Your task to perform on an android device: empty trash in google photos Image 0: 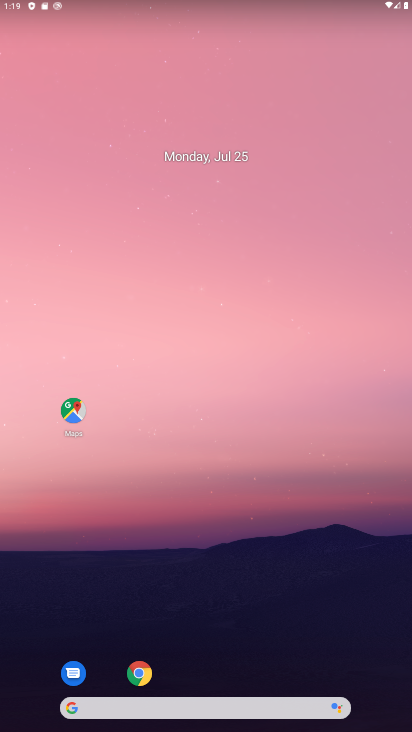
Step 0: drag from (244, 542) to (289, 184)
Your task to perform on an android device: empty trash in google photos Image 1: 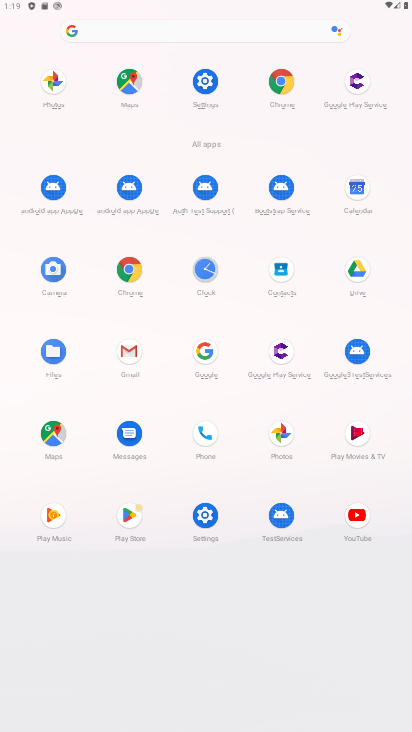
Step 1: click (50, 61)
Your task to perform on an android device: empty trash in google photos Image 2: 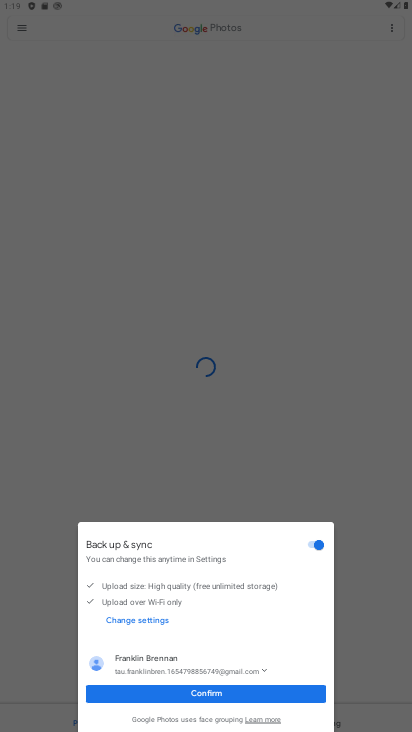
Step 2: click (300, 695)
Your task to perform on an android device: empty trash in google photos Image 3: 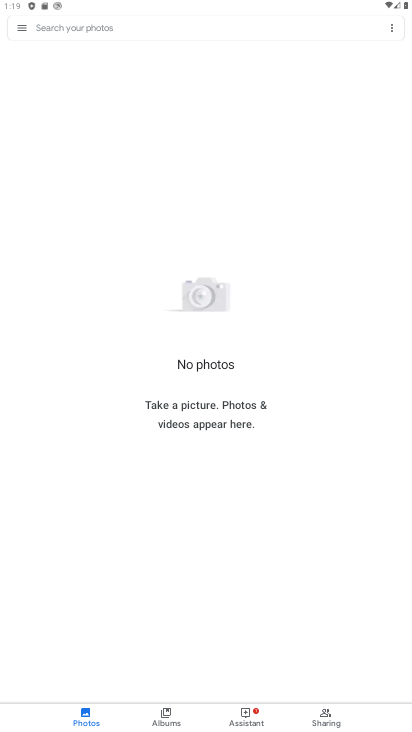
Step 3: click (22, 23)
Your task to perform on an android device: empty trash in google photos Image 4: 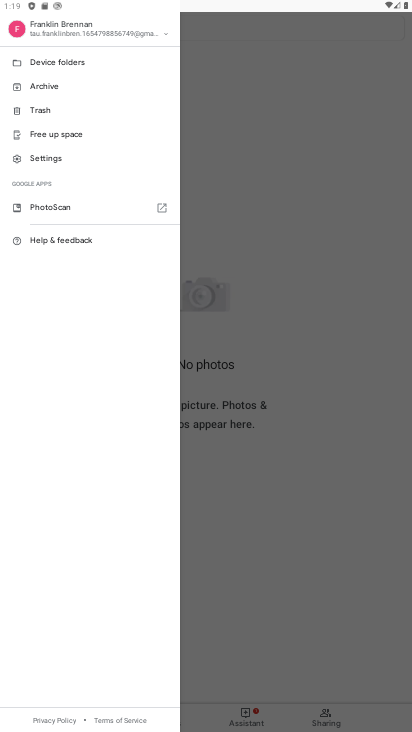
Step 4: click (51, 118)
Your task to perform on an android device: empty trash in google photos Image 5: 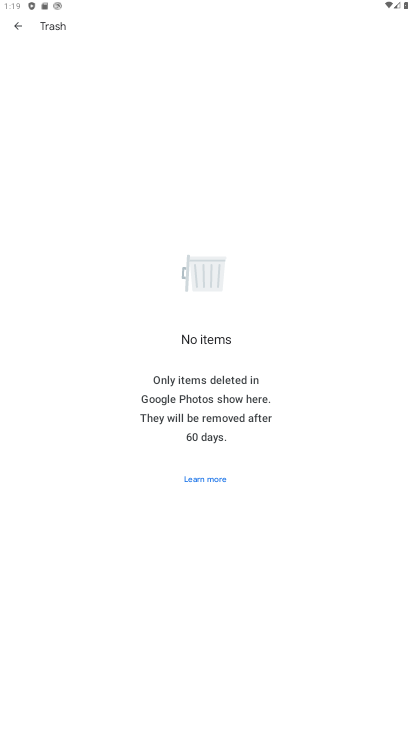
Step 5: task complete